Your task to perform on an android device: toggle notification dots Image 0: 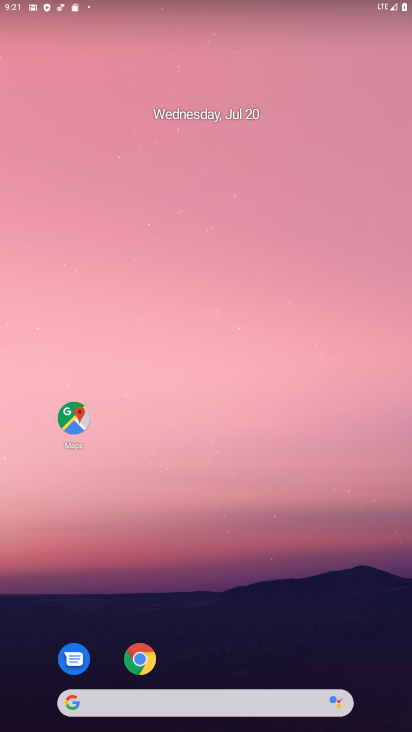
Step 0: drag from (239, 605) to (214, 125)
Your task to perform on an android device: toggle notification dots Image 1: 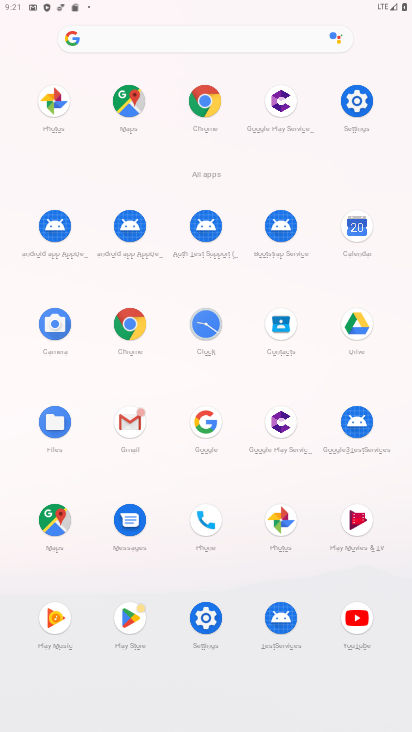
Step 1: click (355, 101)
Your task to perform on an android device: toggle notification dots Image 2: 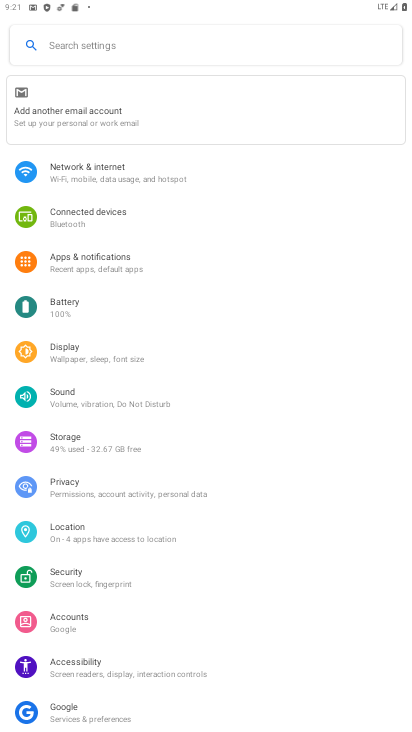
Step 2: click (70, 257)
Your task to perform on an android device: toggle notification dots Image 3: 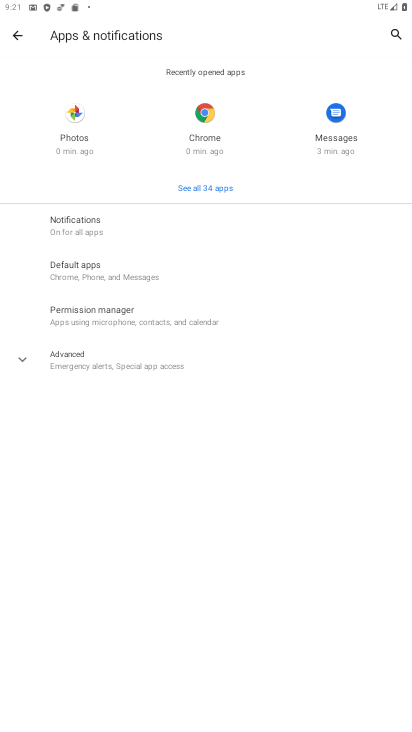
Step 3: click (80, 222)
Your task to perform on an android device: toggle notification dots Image 4: 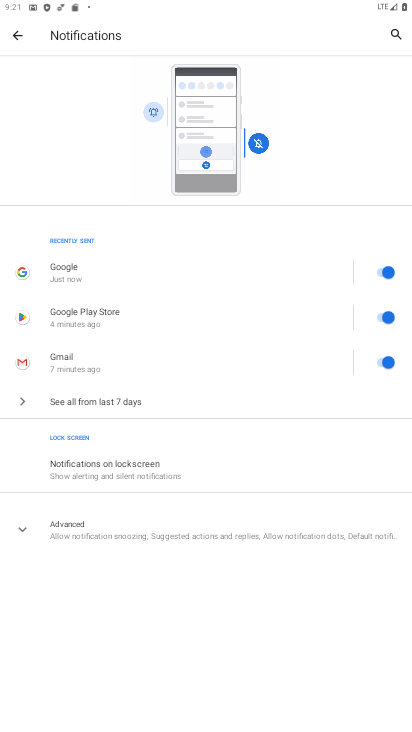
Step 4: click (20, 528)
Your task to perform on an android device: toggle notification dots Image 5: 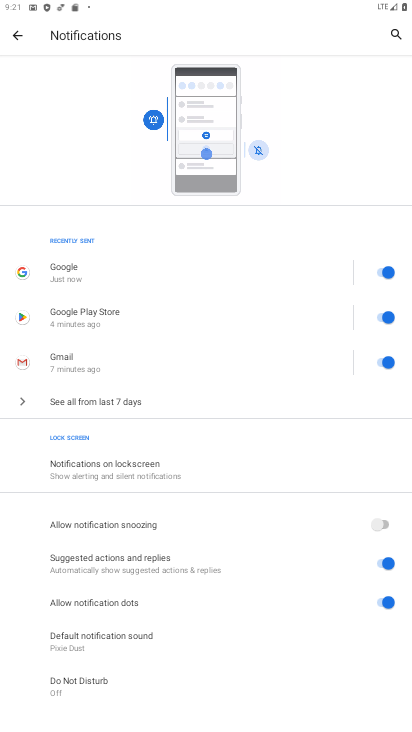
Step 5: click (389, 605)
Your task to perform on an android device: toggle notification dots Image 6: 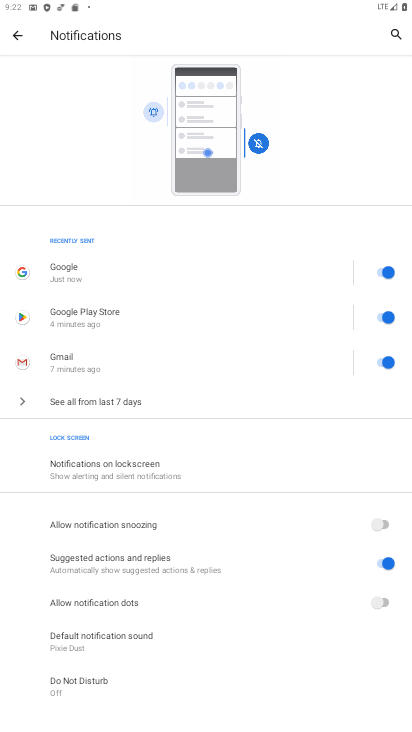
Step 6: task complete